Your task to perform on an android device: add a contact Image 0: 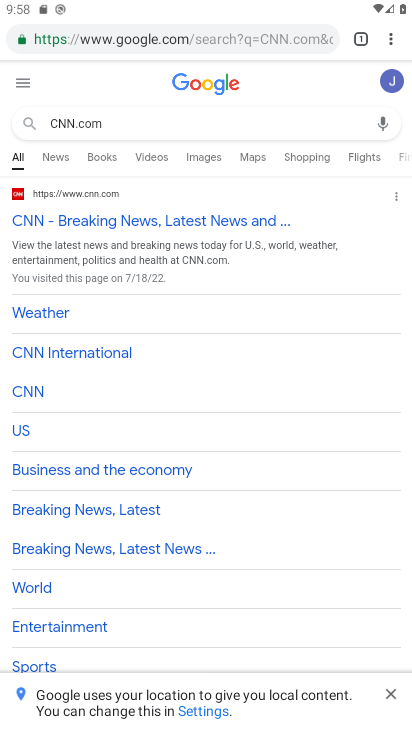
Step 0: press home button
Your task to perform on an android device: add a contact Image 1: 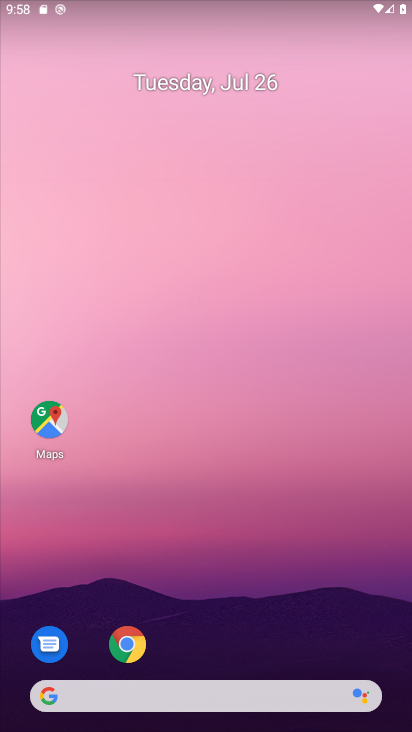
Step 1: drag from (205, 666) to (263, 37)
Your task to perform on an android device: add a contact Image 2: 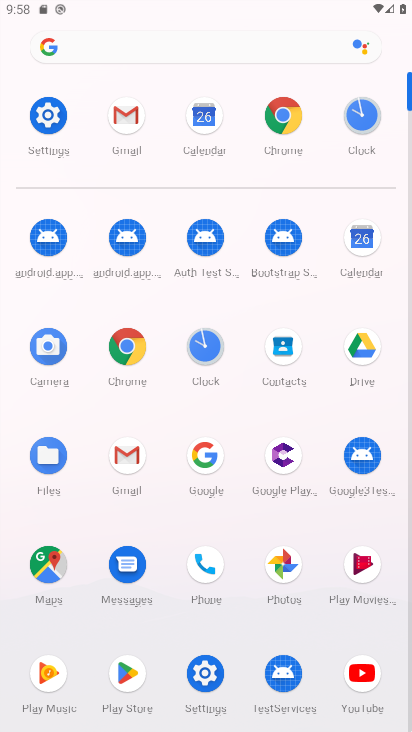
Step 2: click (296, 362)
Your task to perform on an android device: add a contact Image 3: 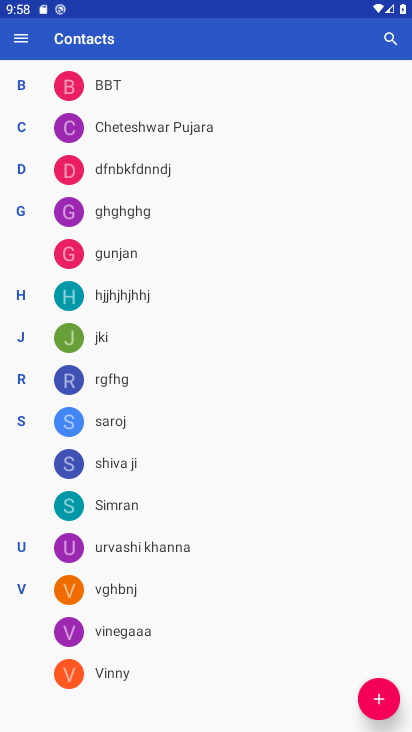
Step 3: click (375, 692)
Your task to perform on an android device: add a contact Image 4: 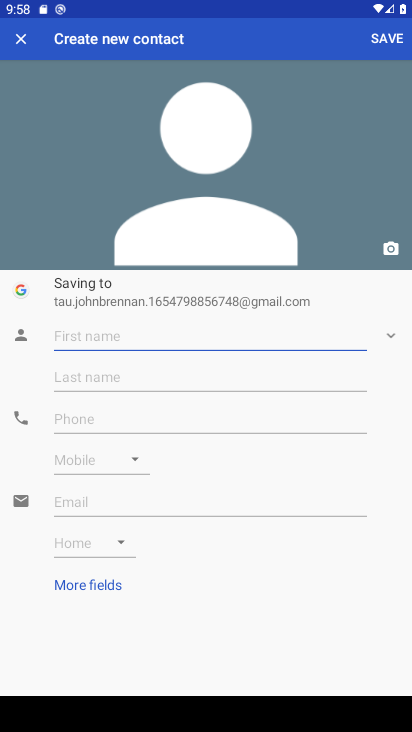
Step 4: type "sylvester"
Your task to perform on an android device: add a contact Image 5: 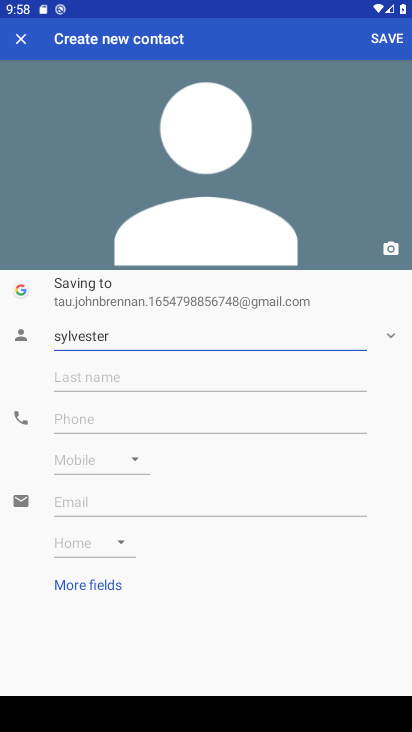
Step 5: click (391, 45)
Your task to perform on an android device: add a contact Image 6: 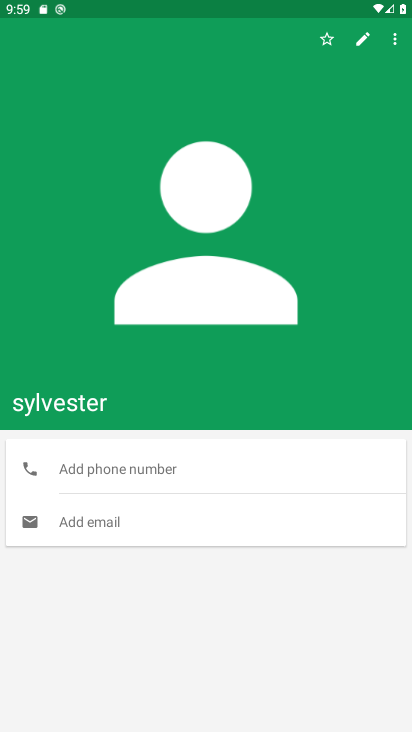
Step 6: task complete